Your task to perform on an android device: Open CNN.com Image 0: 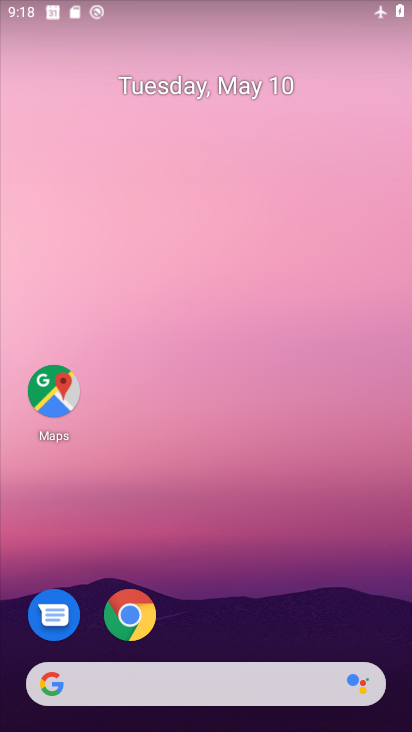
Step 0: drag from (223, 461) to (224, 224)
Your task to perform on an android device: Open CNN.com Image 1: 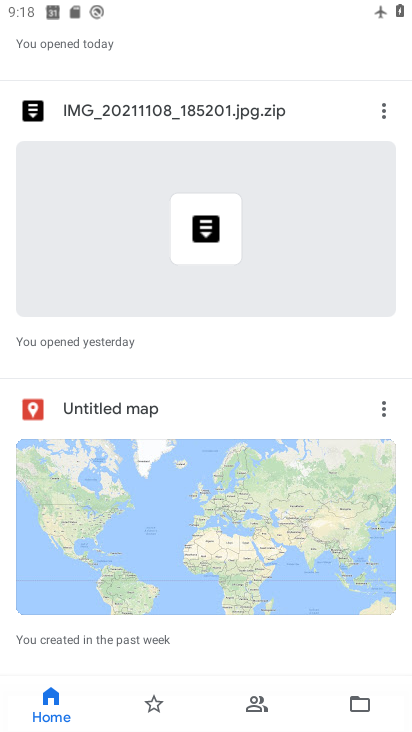
Step 1: drag from (222, 509) to (216, 247)
Your task to perform on an android device: Open CNN.com Image 2: 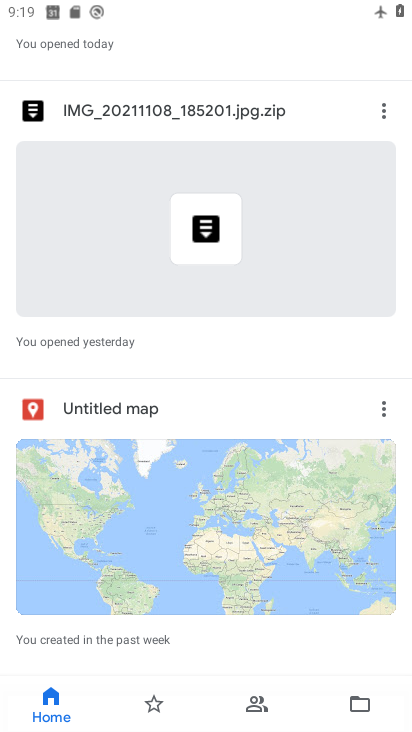
Step 2: drag from (188, 285) to (188, 227)
Your task to perform on an android device: Open CNN.com Image 3: 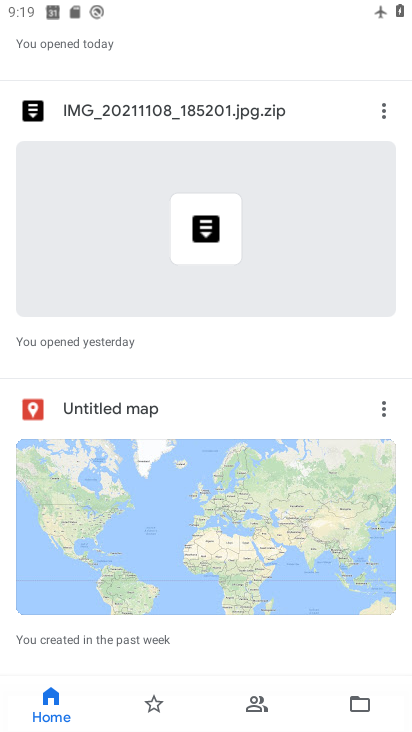
Step 3: press home button
Your task to perform on an android device: Open CNN.com Image 4: 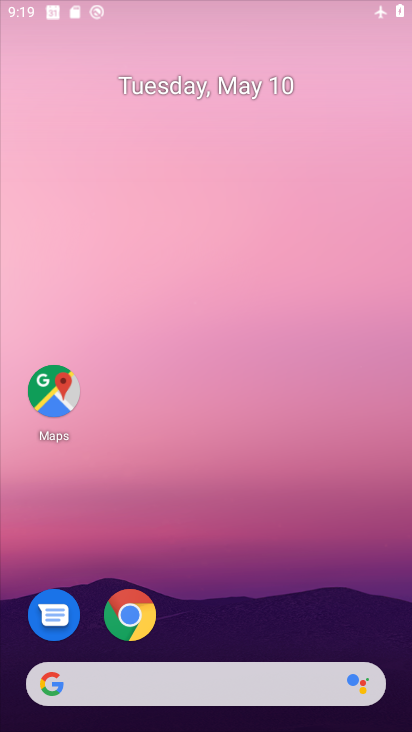
Step 4: drag from (214, 605) to (214, 156)
Your task to perform on an android device: Open CNN.com Image 5: 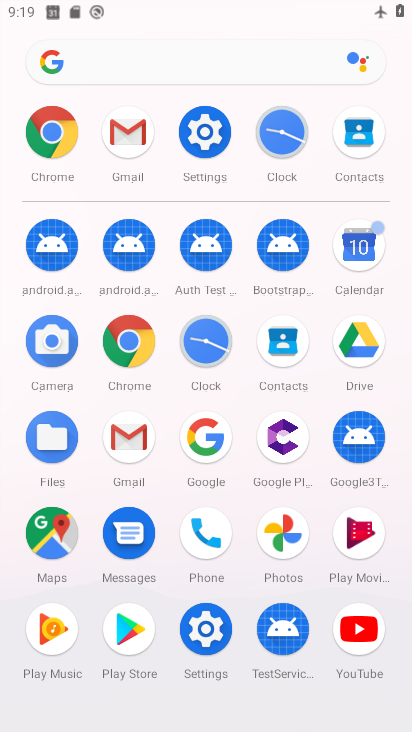
Step 5: click (184, 77)
Your task to perform on an android device: Open CNN.com Image 6: 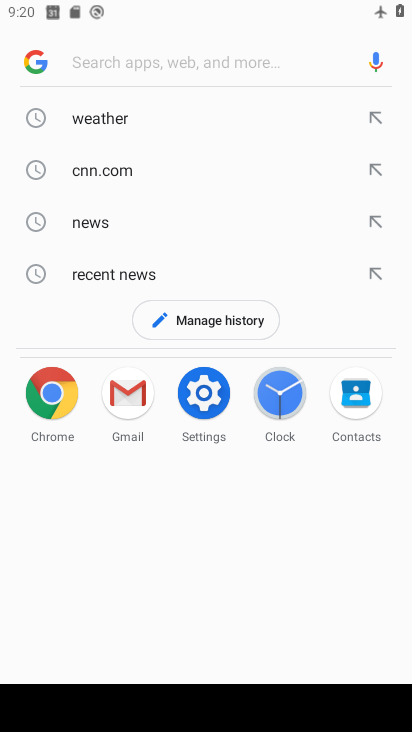
Step 6: drag from (199, 429) to (198, 288)
Your task to perform on an android device: Open CNN.com Image 7: 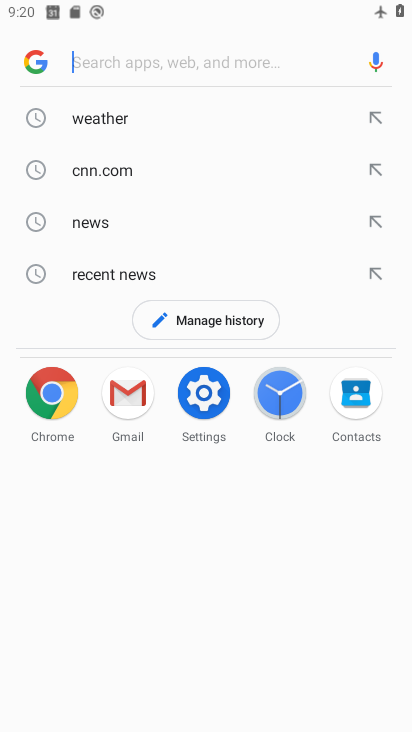
Step 7: click (113, 165)
Your task to perform on an android device: Open CNN.com Image 8: 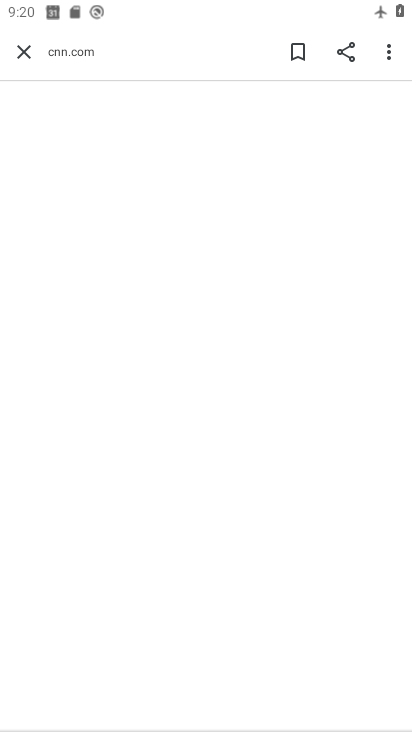
Step 8: task complete